Your task to perform on an android device: see tabs open on other devices in the chrome app Image 0: 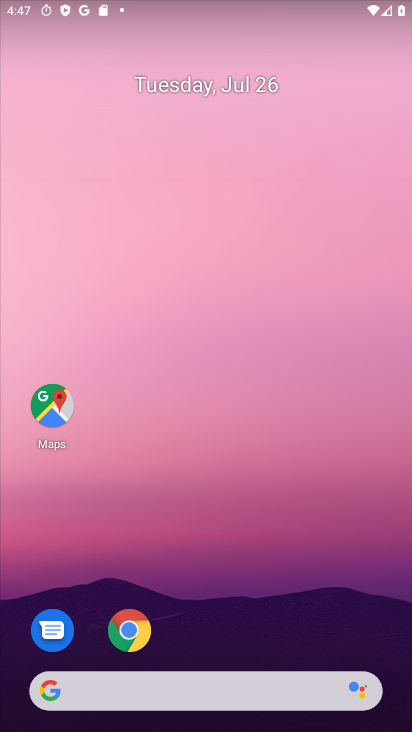
Step 0: drag from (285, 601) to (236, 78)
Your task to perform on an android device: see tabs open on other devices in the chrome app Image 1: 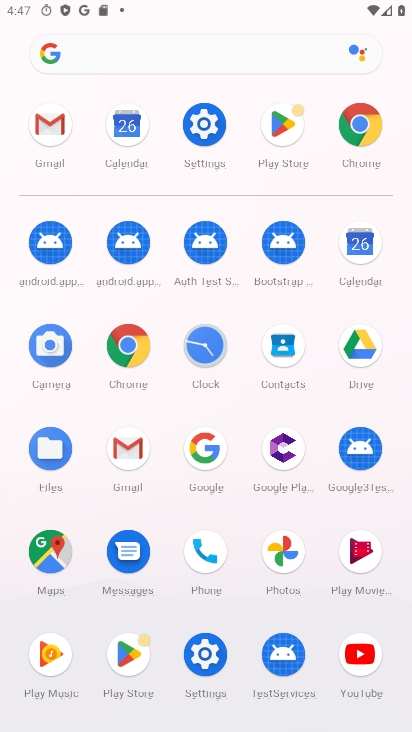
Step 1: click (371, 116)
Your task to perform on an android device: see tabs open on other devices in the chrome app Image 2: 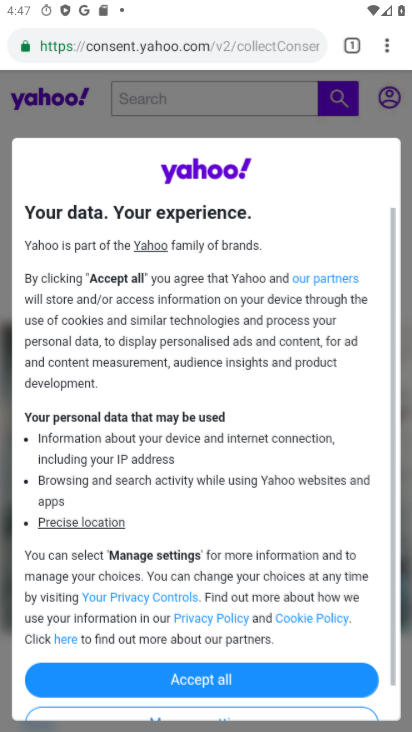
Step 2: task complete